Your task to perform on an android device: open the mobile data screen to see how much data has been used Image 0: 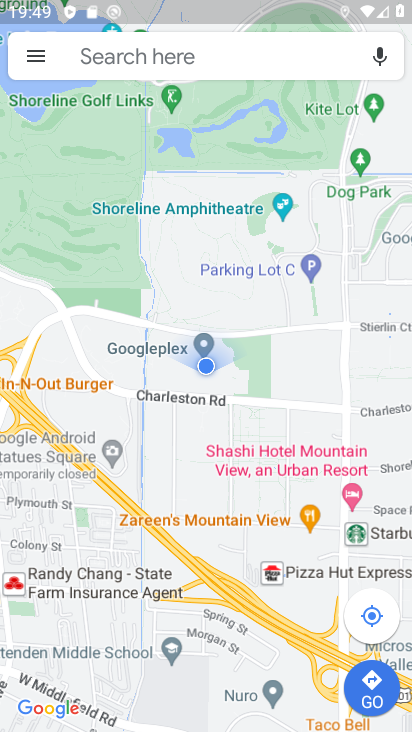
Step 0: press back button
Your task to perform on an android device: open the mobile data screen to see how much data has been used Image 1: 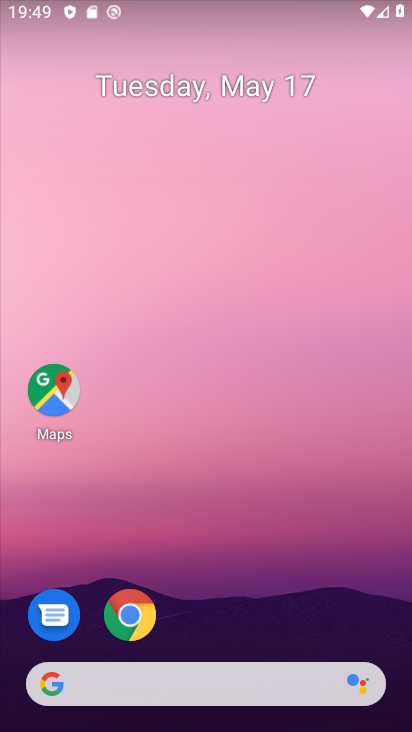
Step 1: drag from (264, 632) to (358, 63)
Your task to perform on an android device: open the mobile data screen to see how much data has been used Image 2: 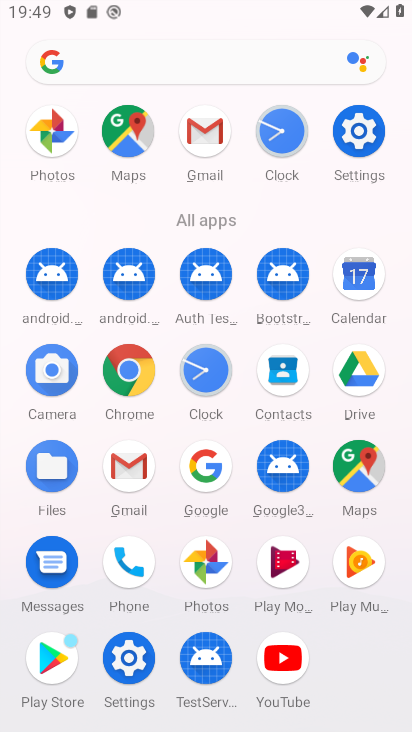
Step 2: click (359, 131)
Your task to perform on an android device: open the mobile data screen to see how much data has been used Image 3: 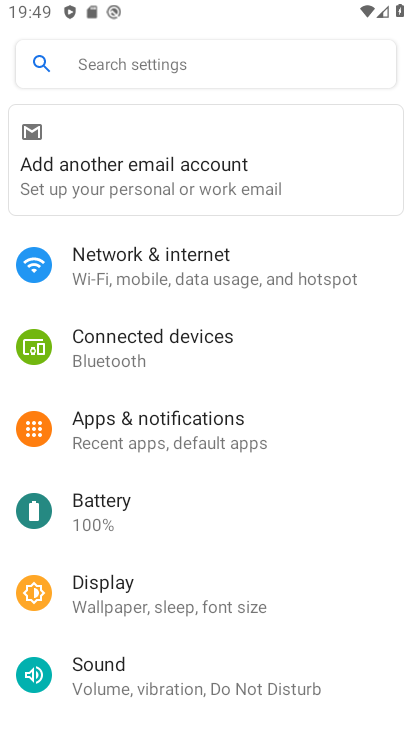
Step 3: click (246, 259)
Your task to perform on an android device: open the mobile data screen to see how much data has been used Image 4: 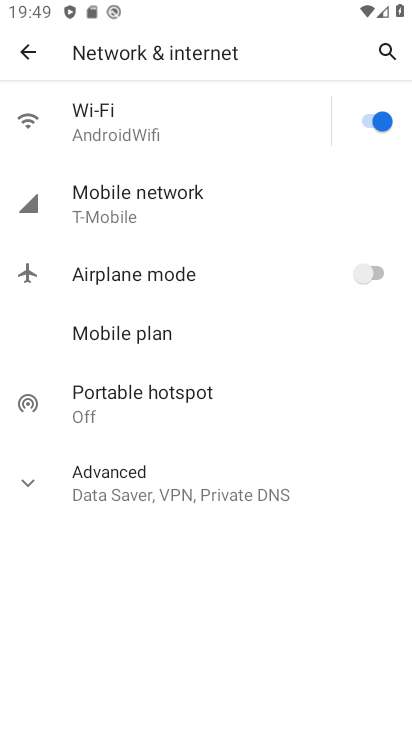
Step 4: click (96, 196)
Your task to perform on an android device: open the mobile data screen to see how much data has been used Image 5: 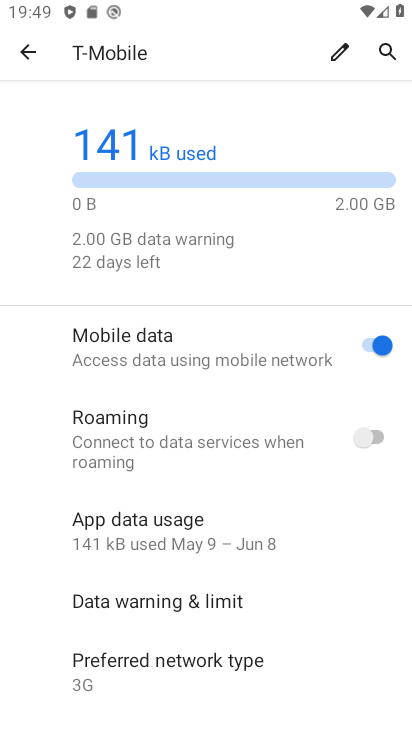
Step 5: click (258, 540)
Your task to perform on an android device: open the mobile data screen to see how much data has been used Image 6: 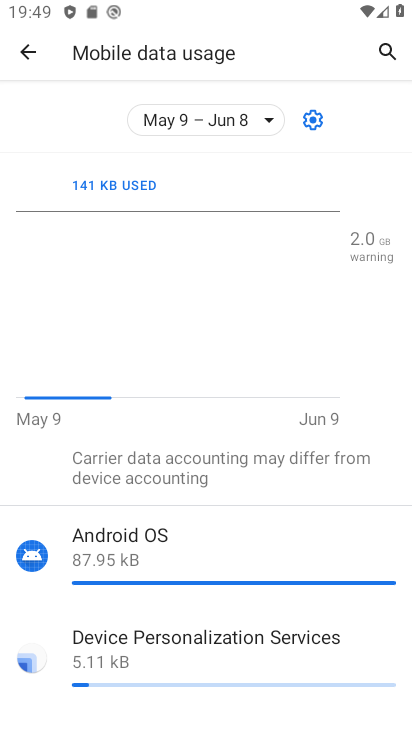
Step 6: task complete